Your task to perform on an android device: toggle sleep mode Image 0: 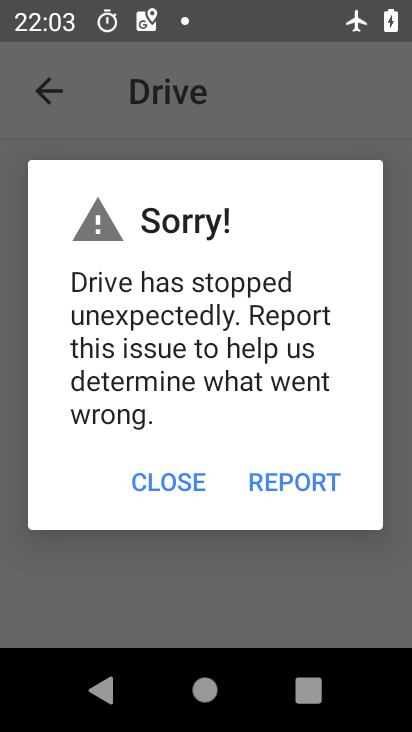
Step 0: press home button
Your task to perform on an android device: toggle sleep mode Image 1: 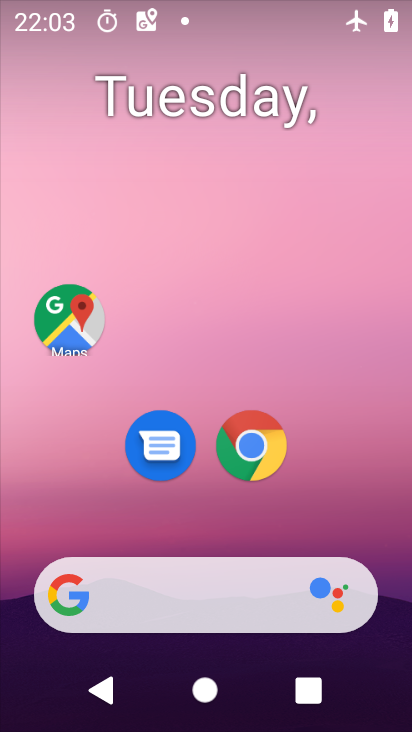
Step 1: drag from (392, 552) to (324, 97)
Your task to perform on an android device: toggle sleep mode Image 2: 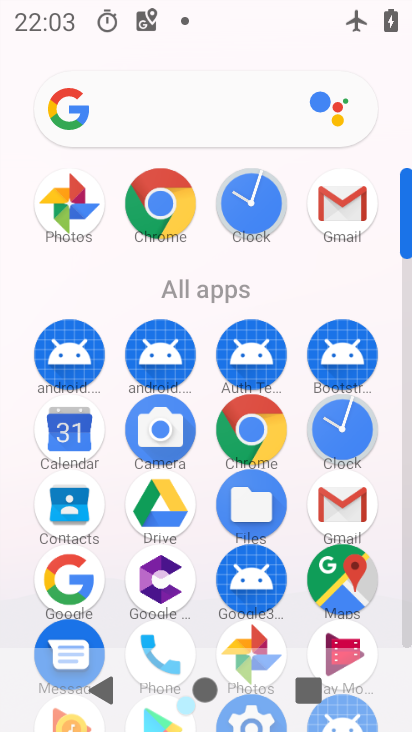
Step 2: click (406, 638)
Your task to perform on an android device: toggle sleep mode Image 3: 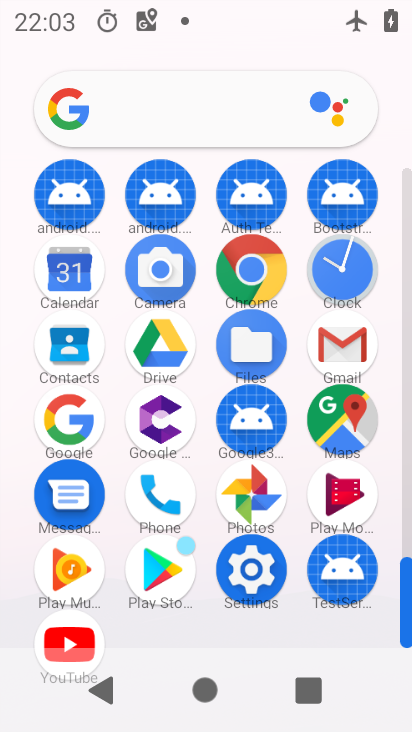
Step 3: click (259, 583)
Your task to perform on an android device: toggle sleep mode Image 4: 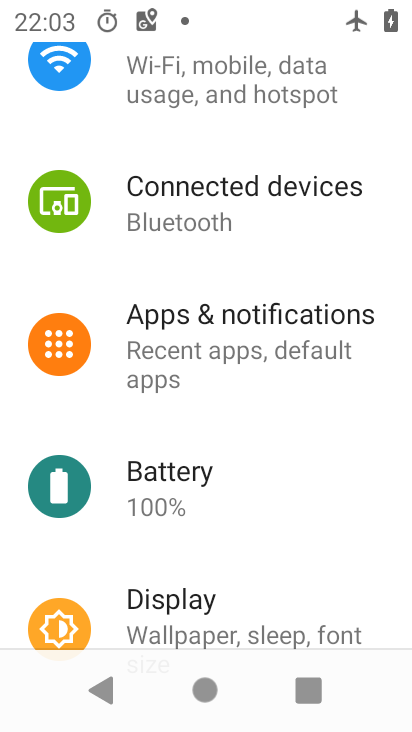
Step 4: click (258, 606)
Your task to perform on an android device: toggle sleep mode Image 5: 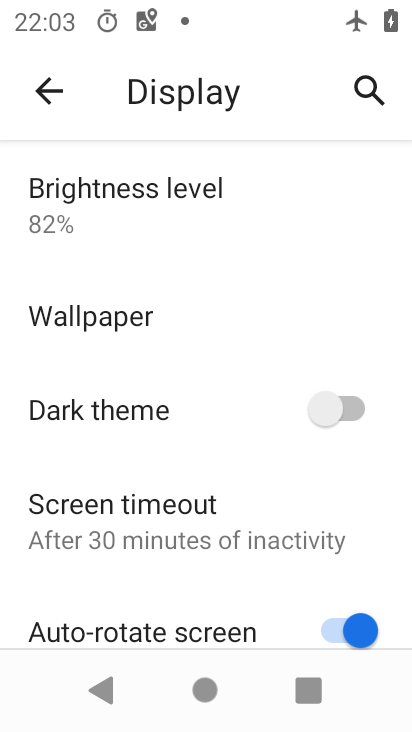
Step 5: task complete